Your task to perform on an android device: Go to internet settings Image 0: 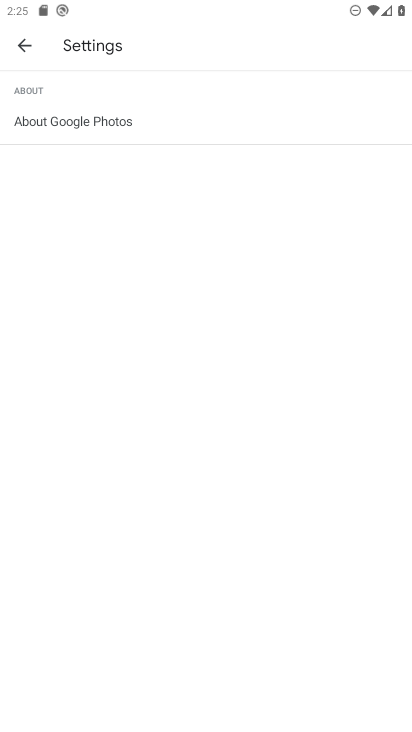
Step 0: press home button
Your task to perform on an android device: Go to internet settings Image 1: 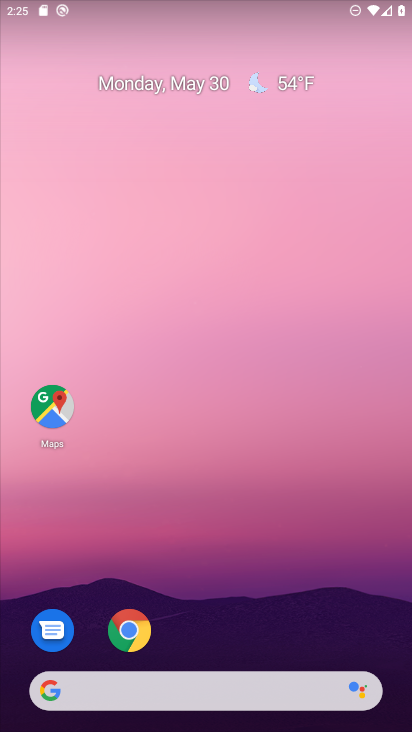
Step 1: drag from (213, 687) to (215, 71)
Your task to perform on an android device: Go to internet settings Image 2: 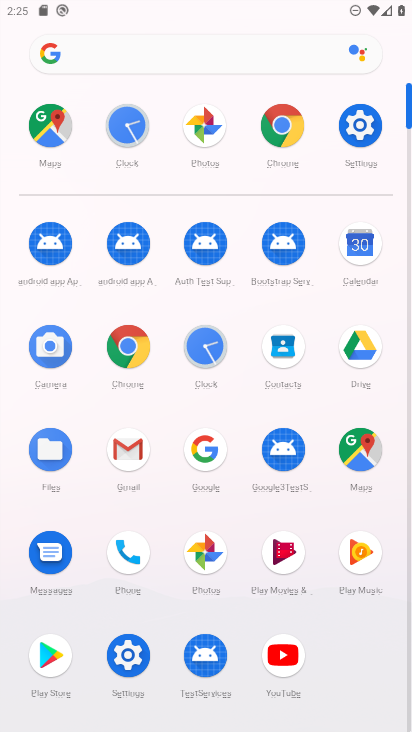
Step 2: click (126, 673)
Your task to perform on an android device: Go to internet settings Image 3: 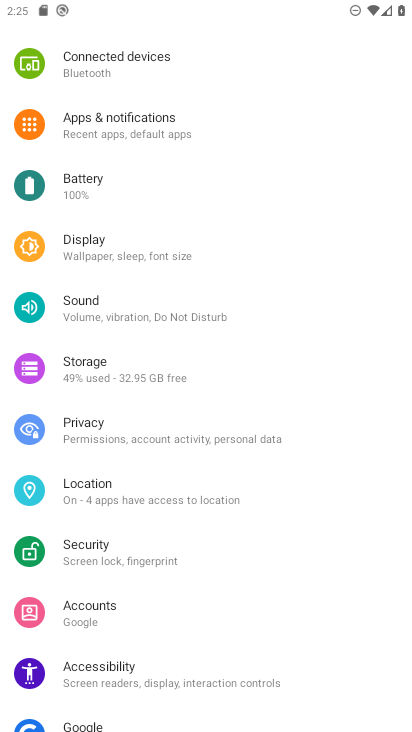
Step 3: drag from (138, 97) to (167, 560)
Your task to perform on an android device: Go to internet settings Image 4: 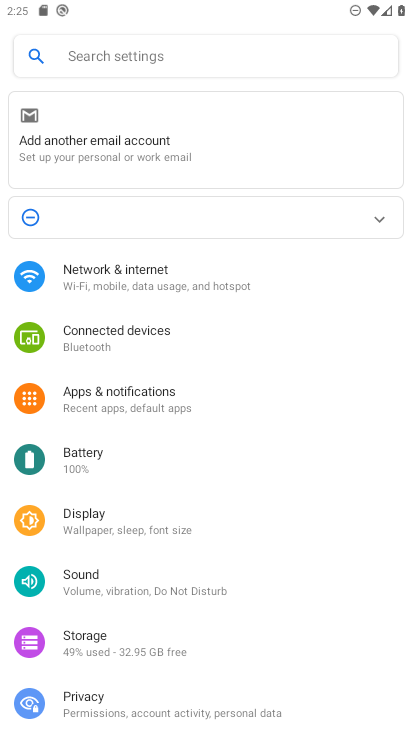
Step 4: click (123, 285)
Your task to perform on an android device: Go to internet settings Image 5: 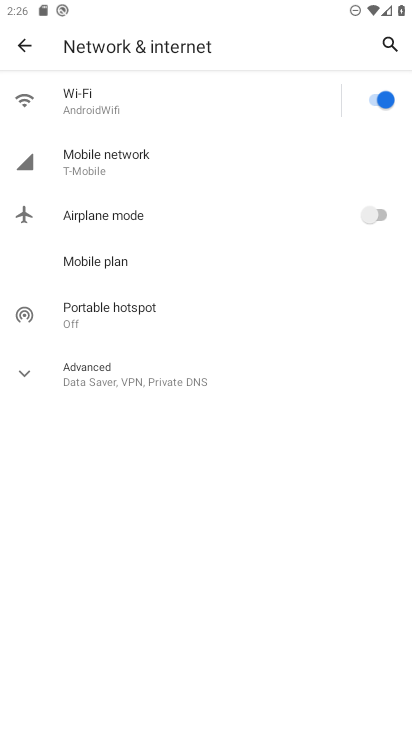
Step 5: task complete